Your task to perform on an android device: toggle wifi Image 0: 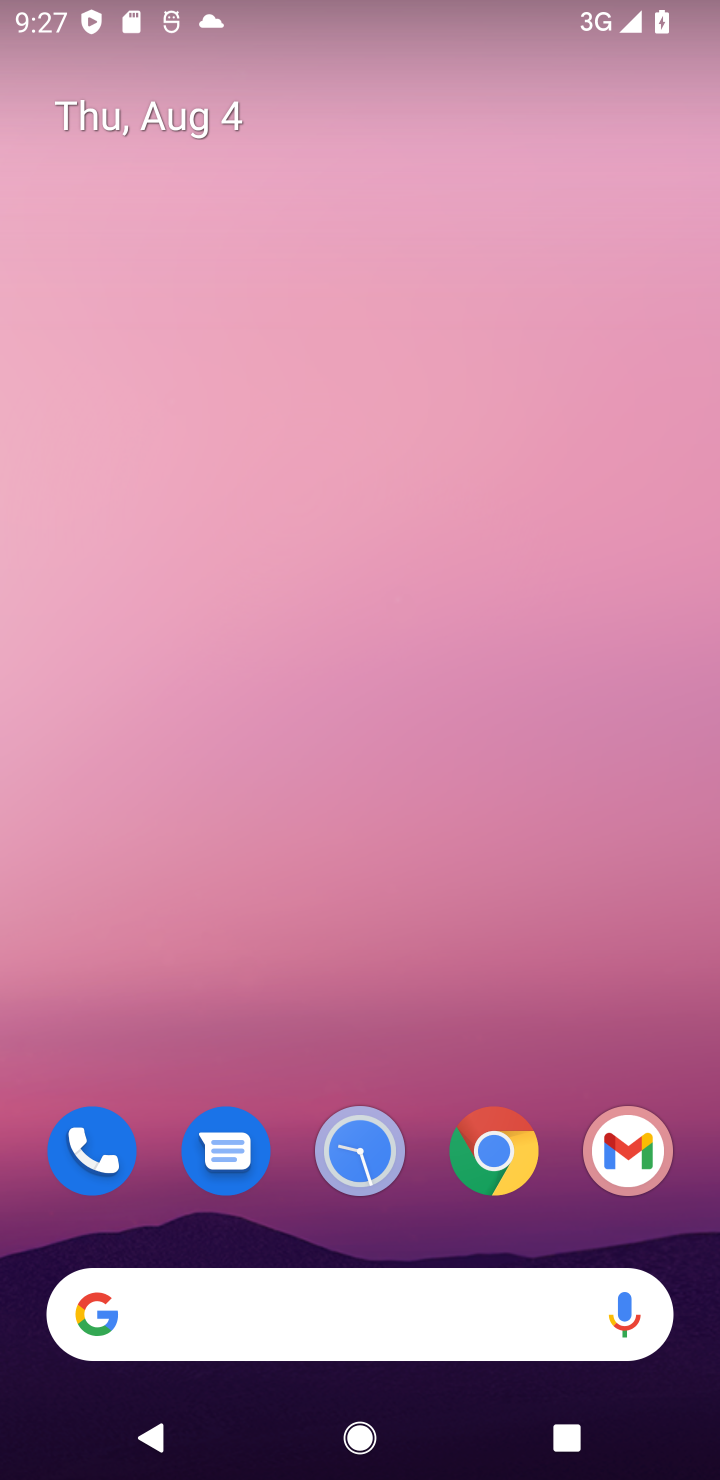
Step 0: drag from (301, 9) to (654, 1173)
Your task to perform on an android device: toggle wifi Image 1: 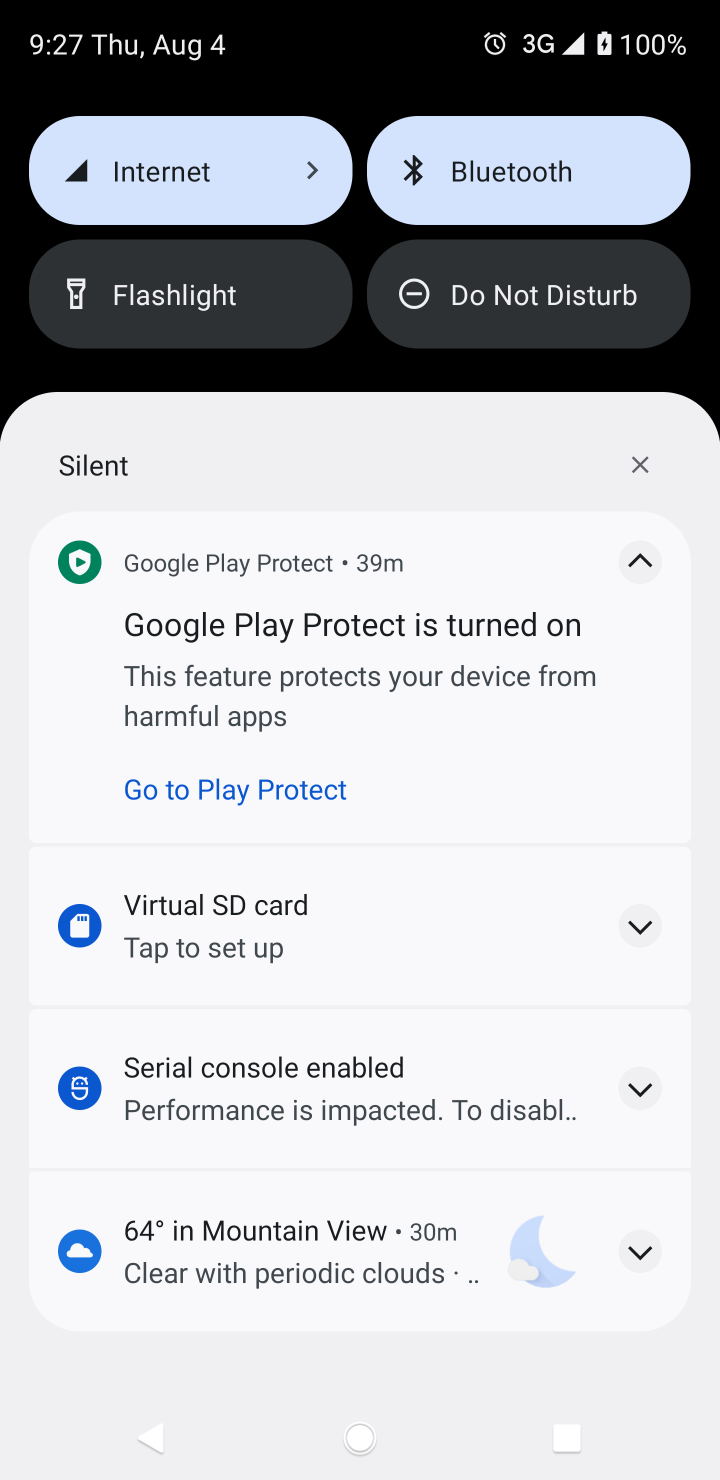
Step 1: click (207, 190)
Your task to perform on an android device: toggle wifi Image 2: 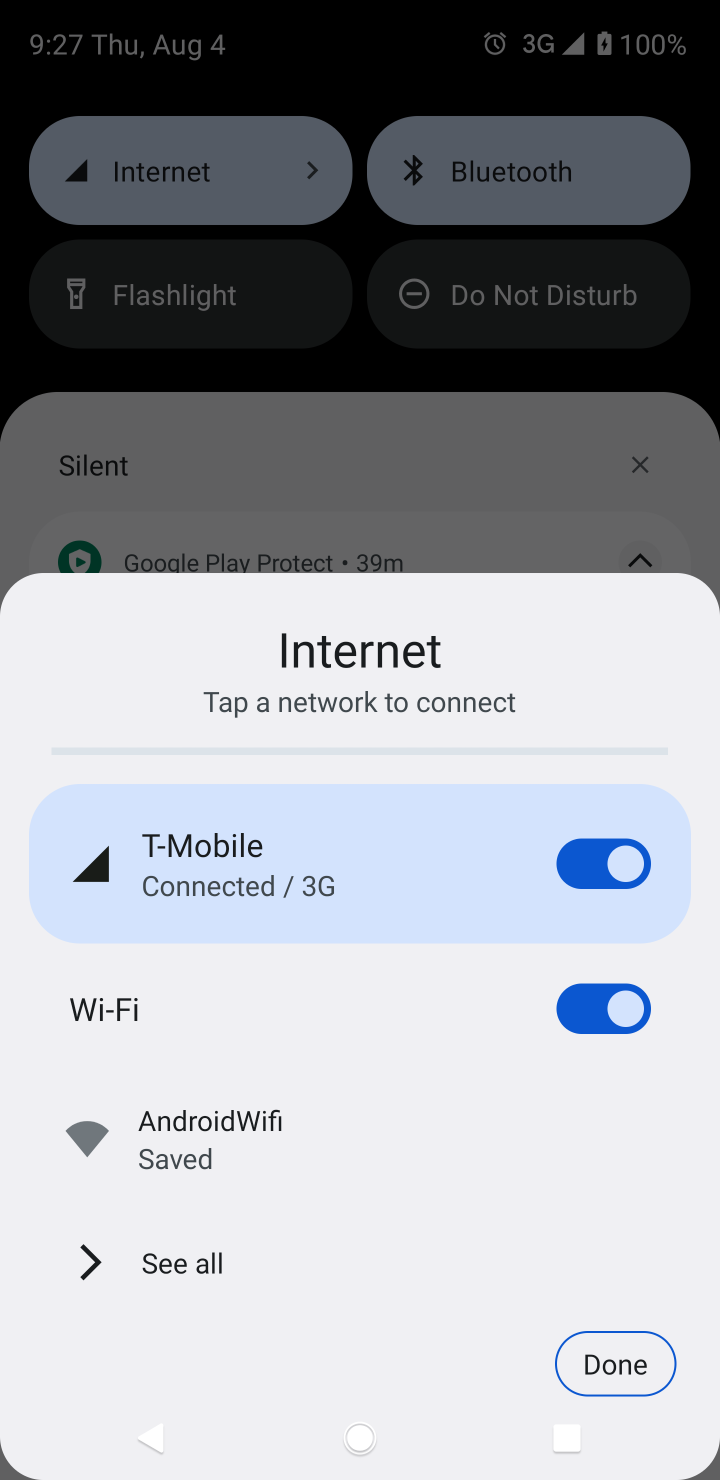
Step 2: click (591, 989)
Your task to perform on an android device: toggle wifi Image 3: 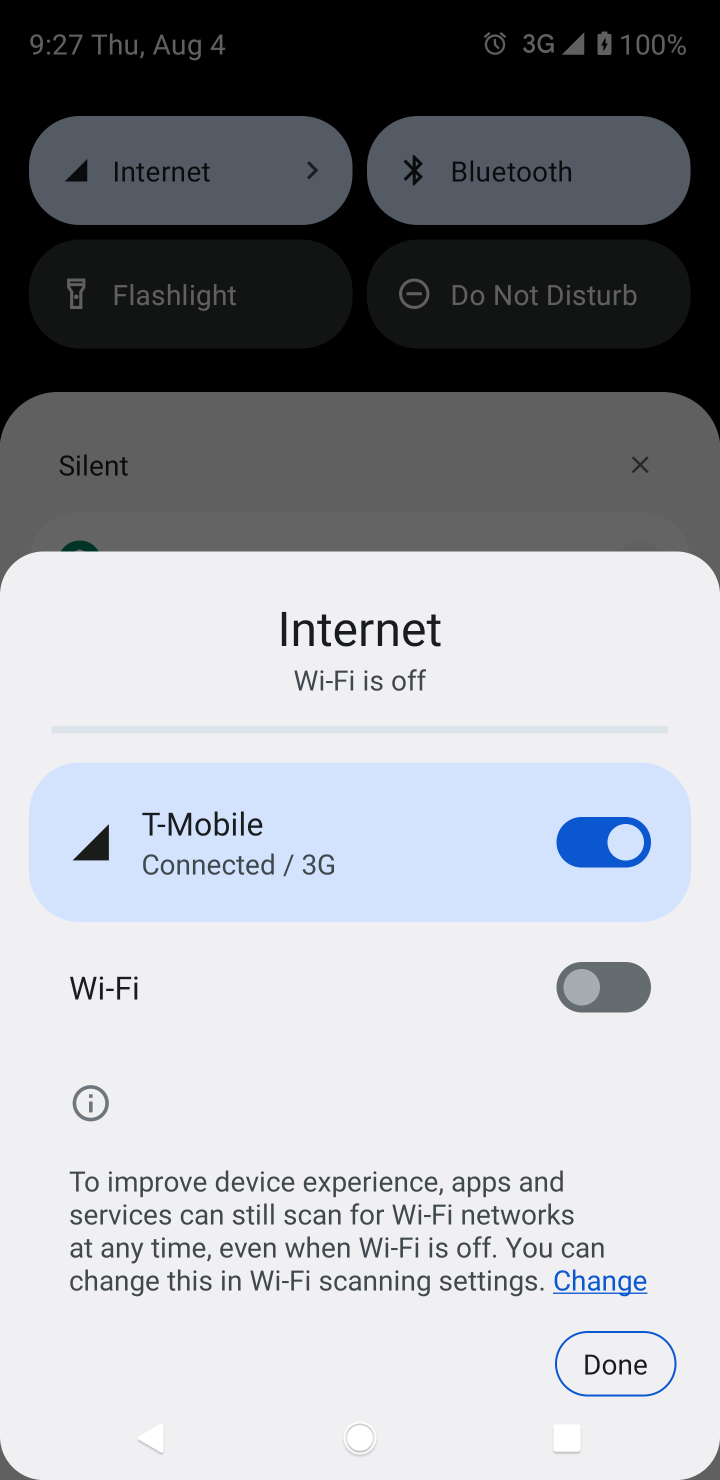
Step 3: task complete